Your task to perform on an android device: install app "ColorNote Notepad Notes" Image 0: 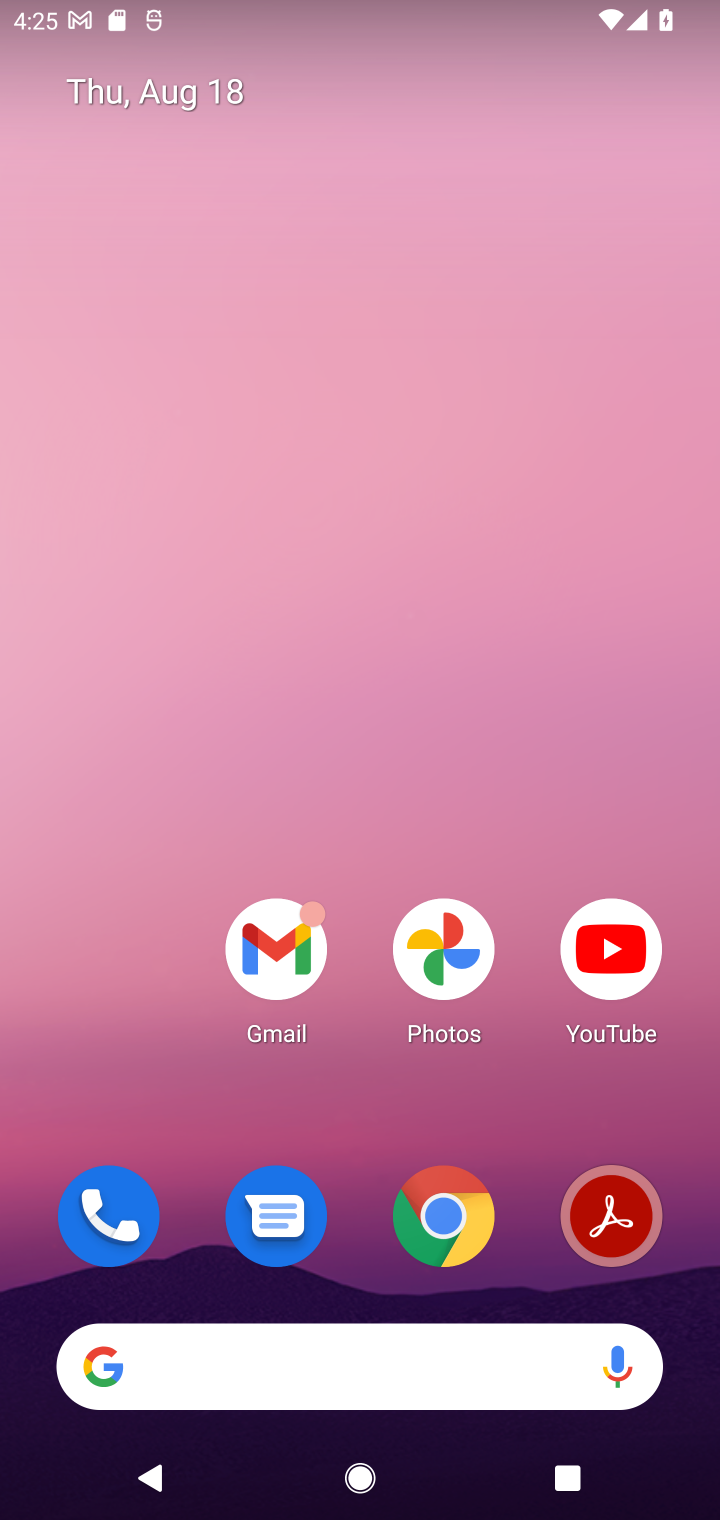
Step 0: drag from (527, 1280) to (469, 305)
Your task to perform on an android device: install app "ColorNote Notepad Notes" Image 1: 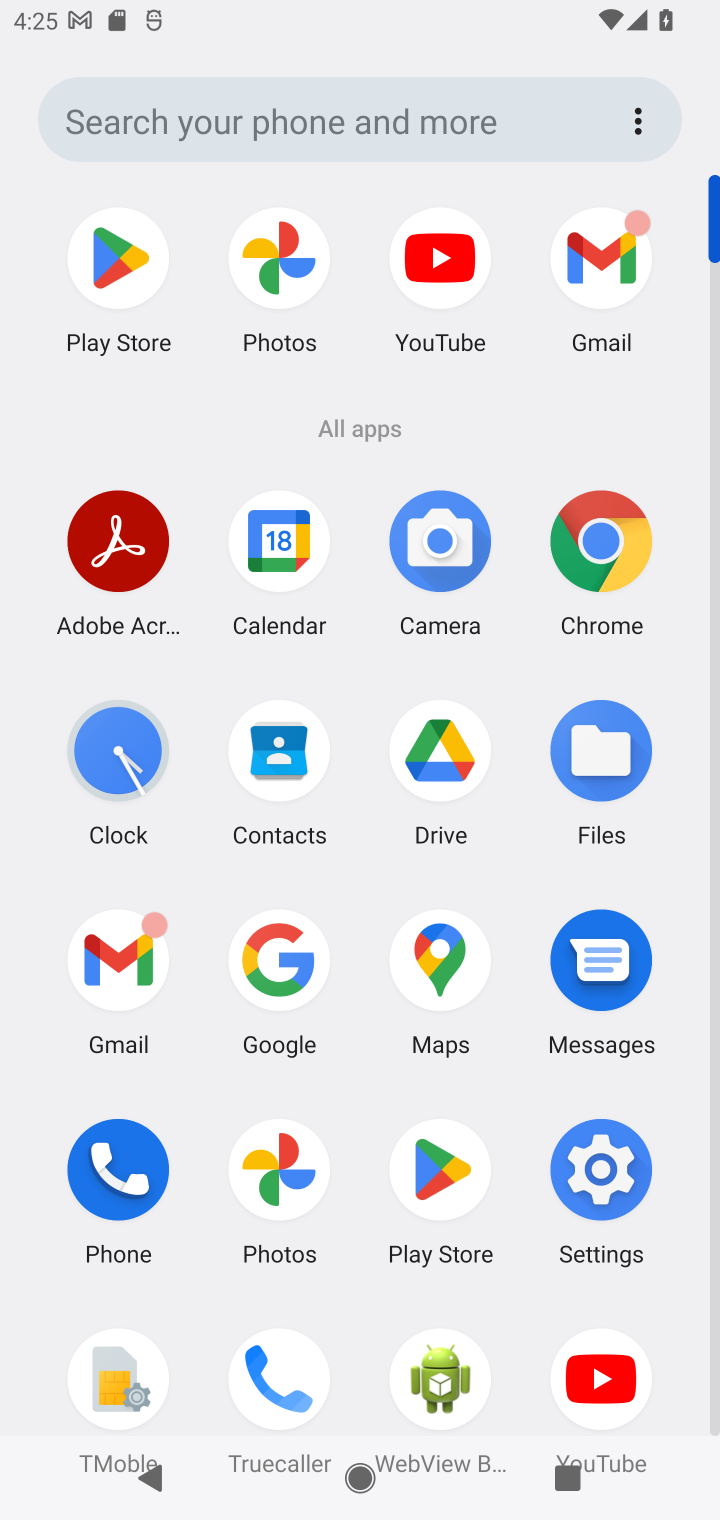
Step 1: click (442, 1176)
Your task to perform on an android device: install app "ColorNote Notepad Notes" Image 2: 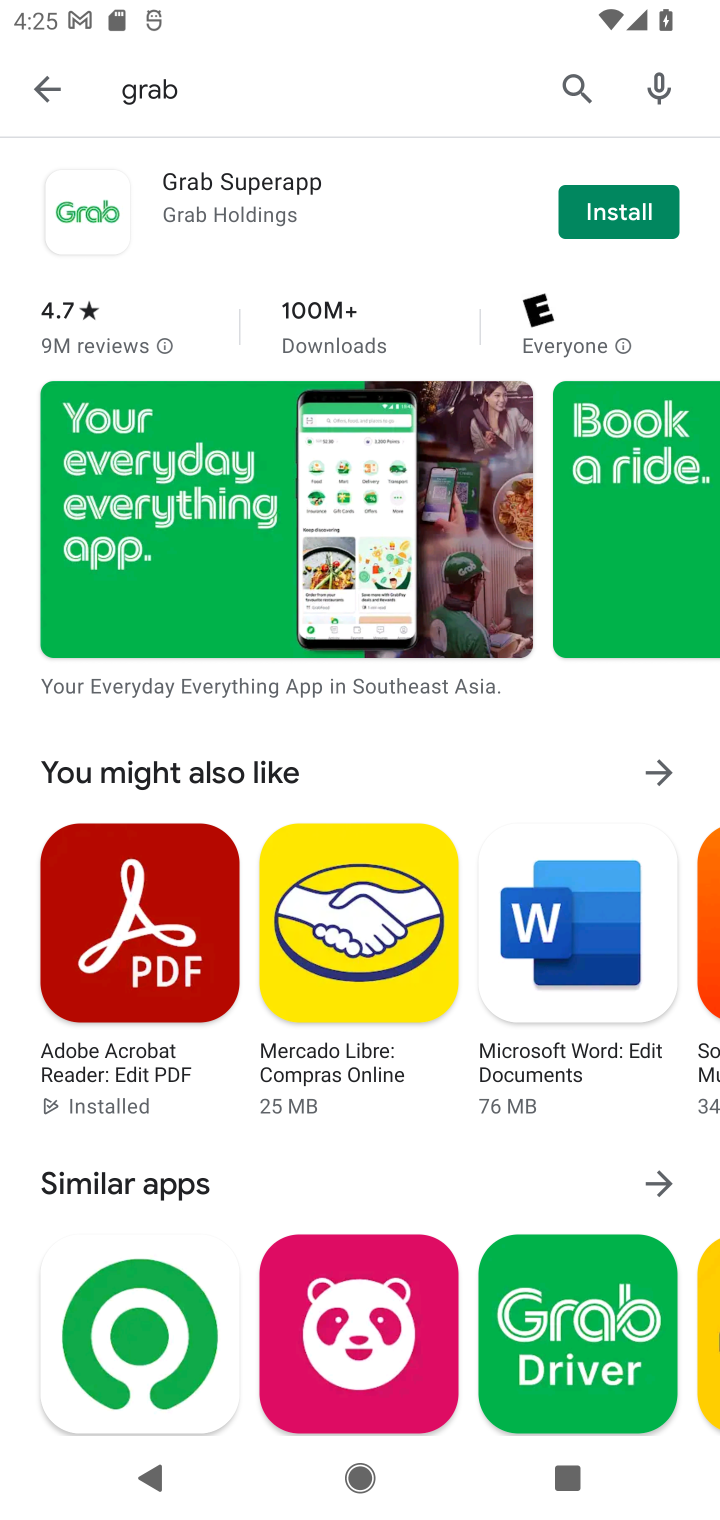
Step 2: click (565, 83)
Your task to perform on an android device: install app "ColorNote Notepad Notes" Image 3: 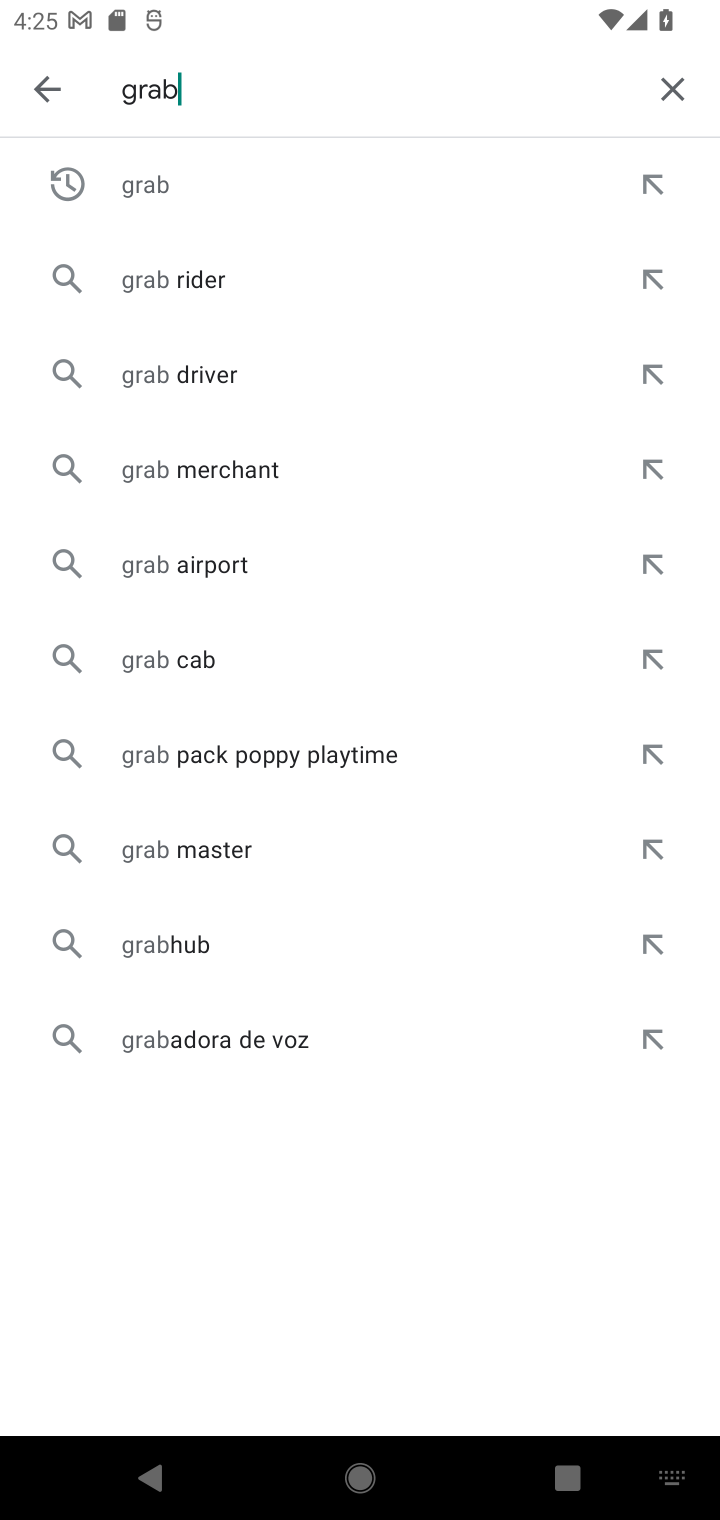
Step 3: click (676, 87)
Your task to perform on an android device: install app "ColorNote Notepad Notes" Image 4: 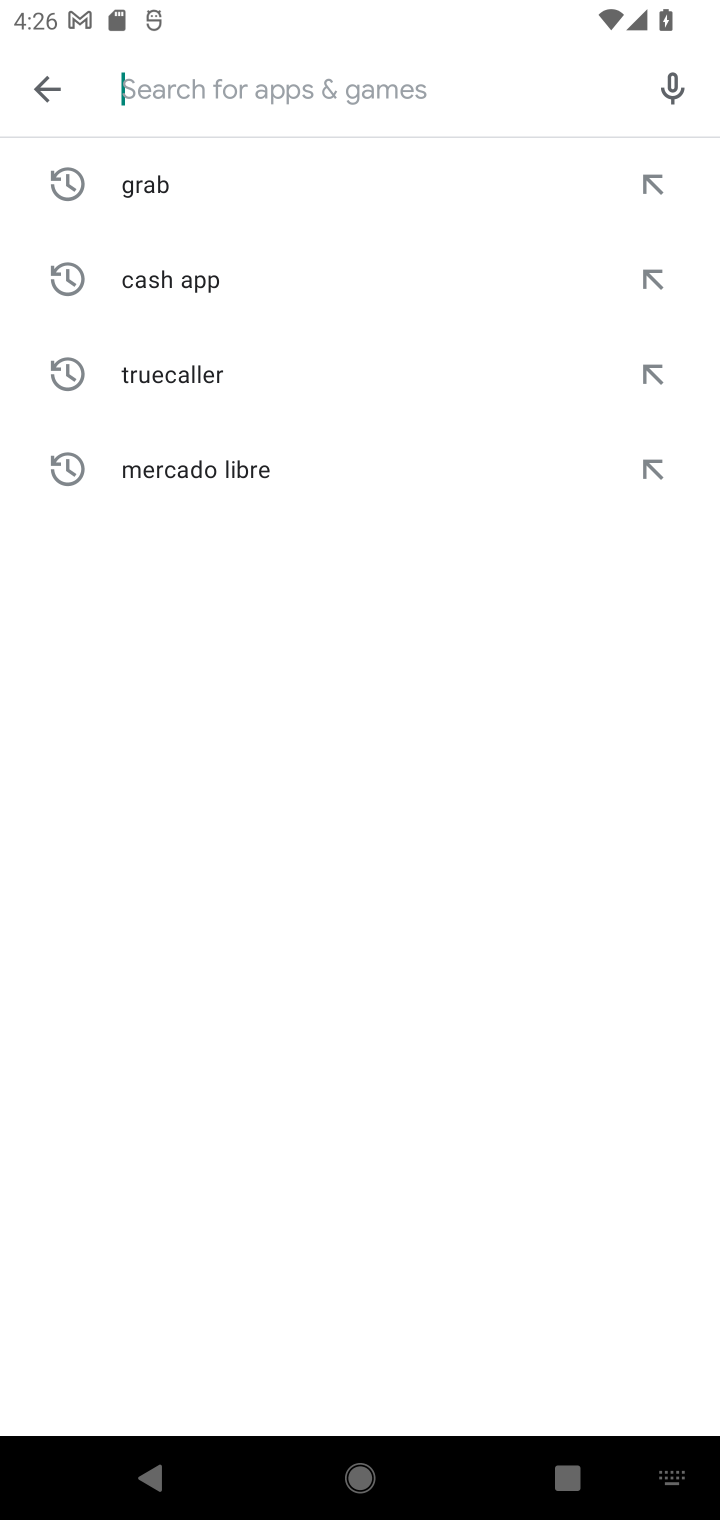
Step 4: type "ColorNote Notepad Notes"
Your task to perform on an android device: install app "ColorNote Notepad Notes" Image 5: 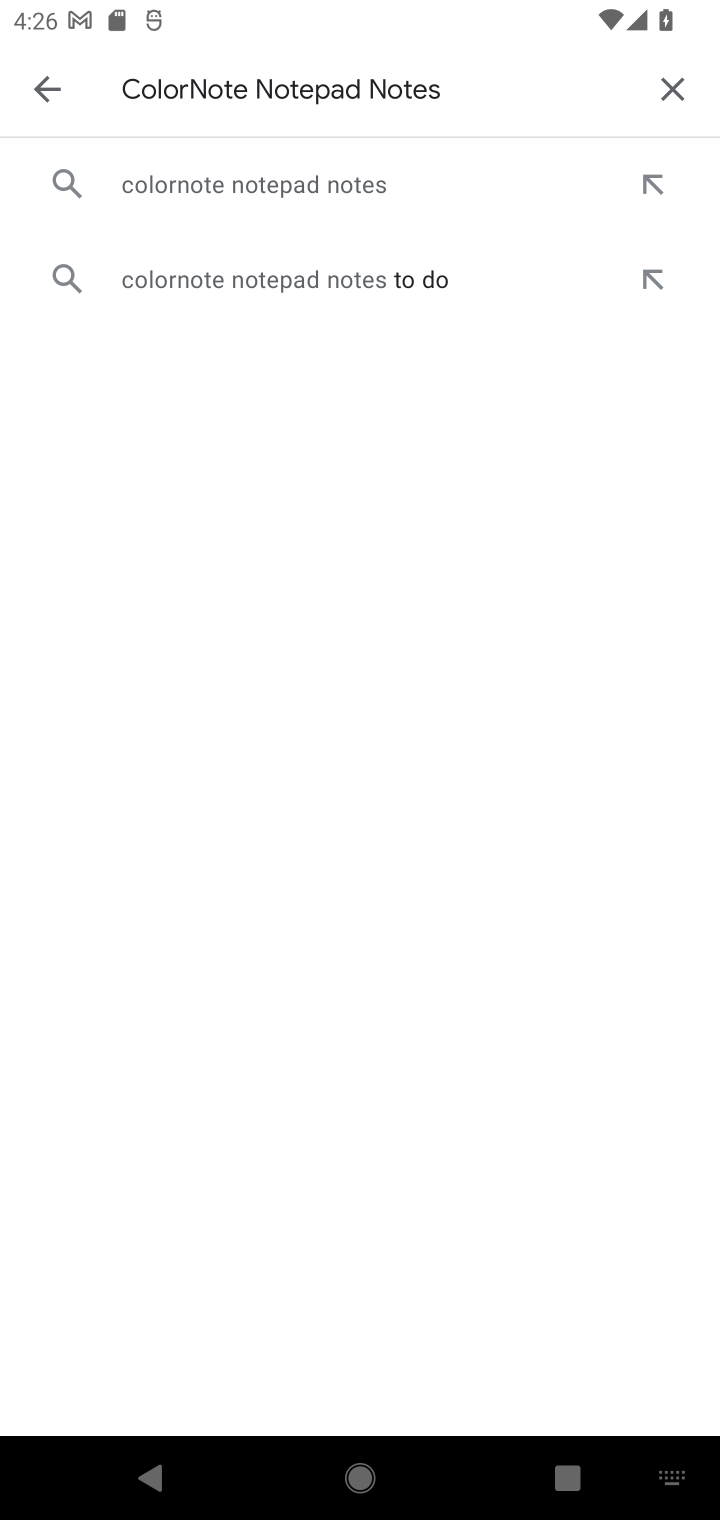
Step 5: click (247, 192)
Your task to perform on an android device: install app "ColorNote Notepad Notes" Image 6: 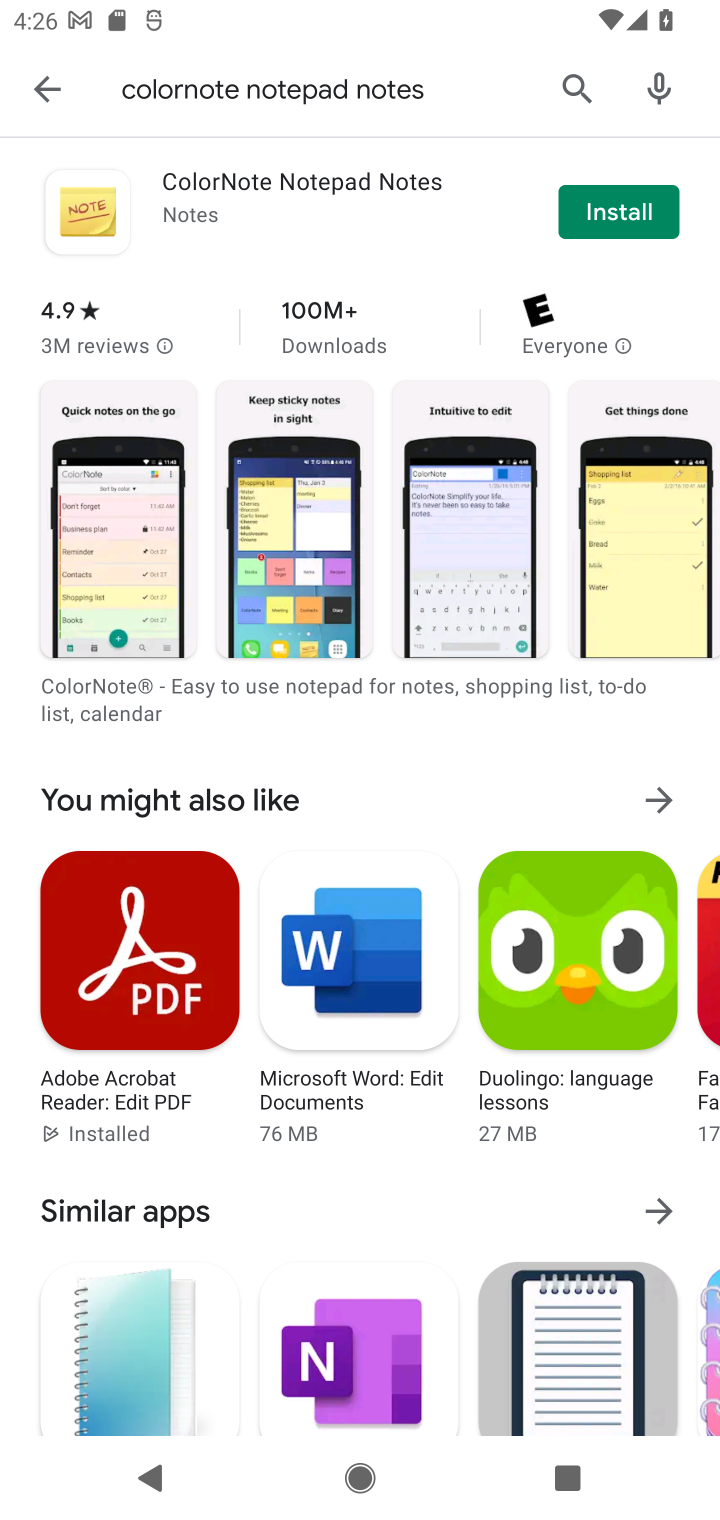
Step 6: click (619, 205)
Your task to perform on an android device: install app "ColorNote Notepad Notes" Image 7: 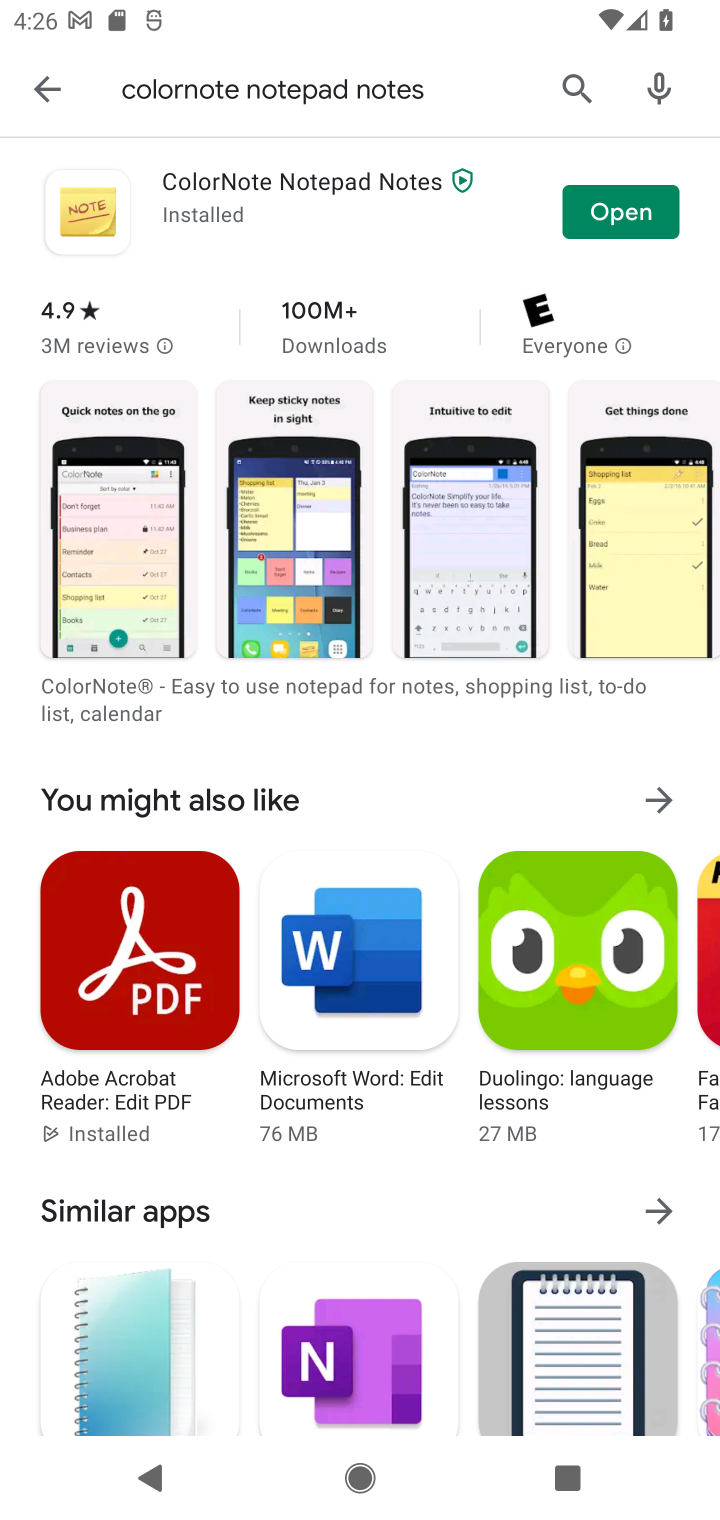
Step 7: task complete